Your task to perform on an android device: Search for Mexican restaurants on Maps Image 0: 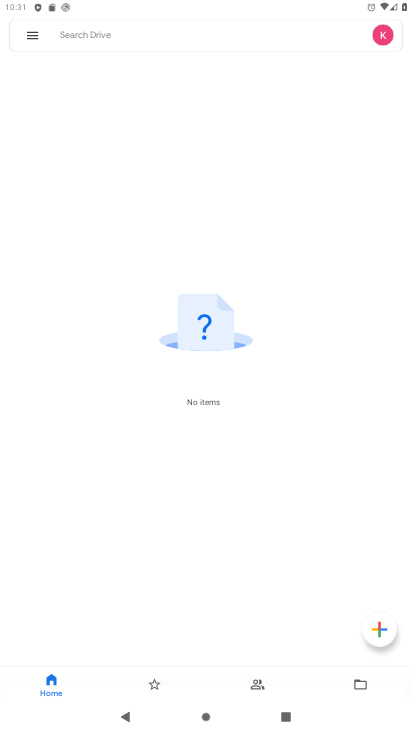
Step 0: press home button
Your task to perform on an android device: Search for Mexican restaurants on Maps Image 1: 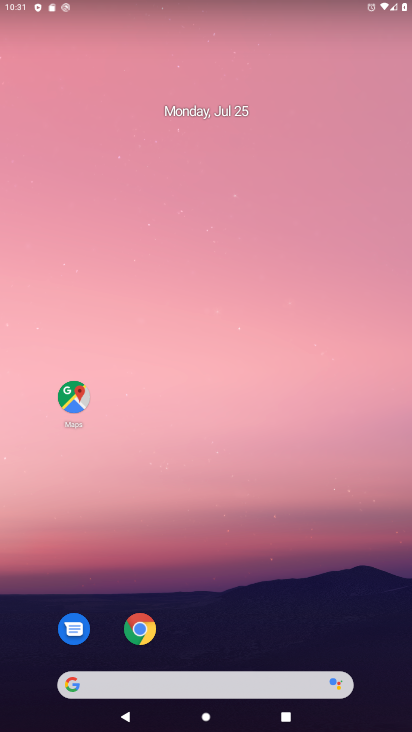
Step 1: click (74, 390)
Your task to perform on an android device: Search for Mexican restaurants on Maps Image 2: 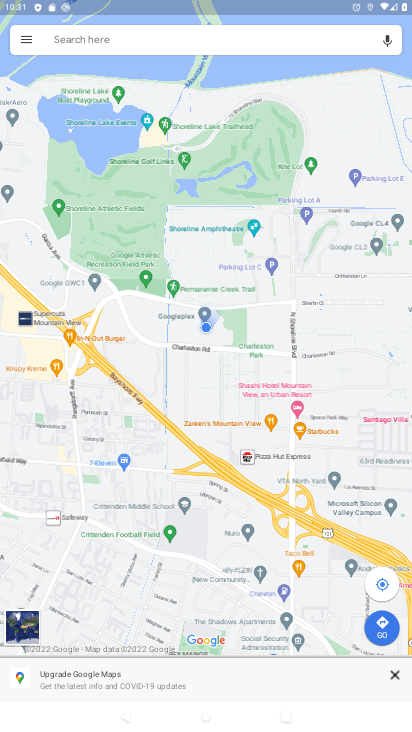
Step 2: click (213, 34)
Your task to perform on an android device: Search for Mexican restaurants on Maps Image 3: 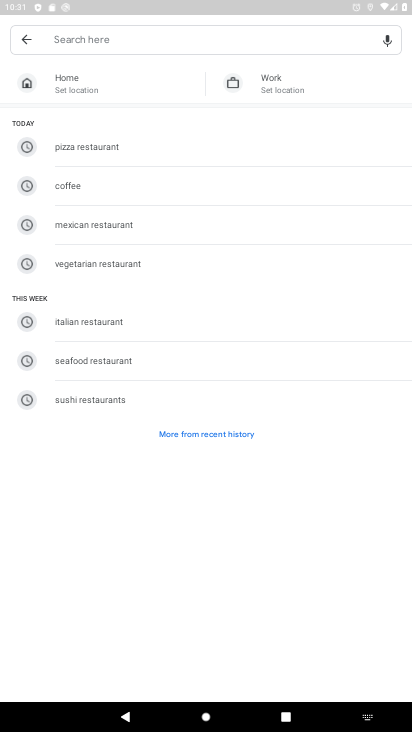
Step 3: type "mexican restaurants"
Your task to perform on an android device: Search for Mexican restaurants on Maps Image 4: 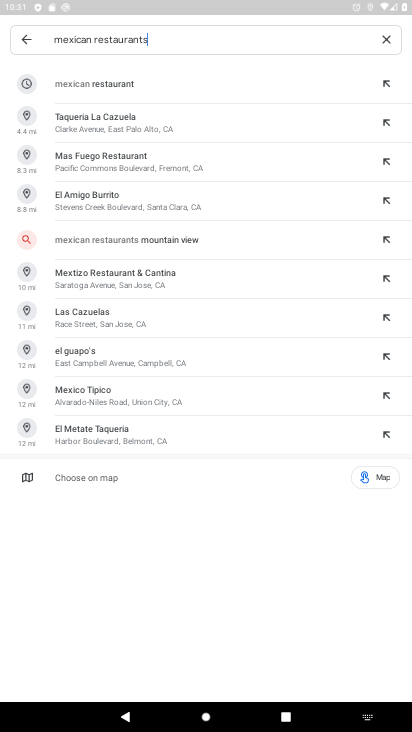
Step 4: click (267, 77)
Your task to perform on an android device: Search for Mexican restaurants on Maps Image 5: 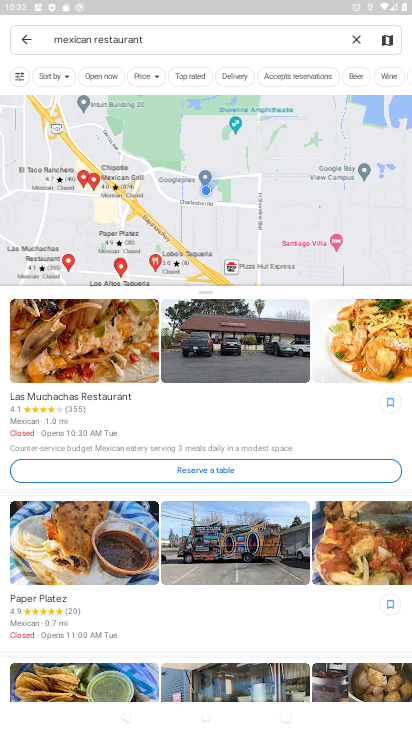
Step 5: task complete